Your task to perform on an android device: toggle location history Image 0: 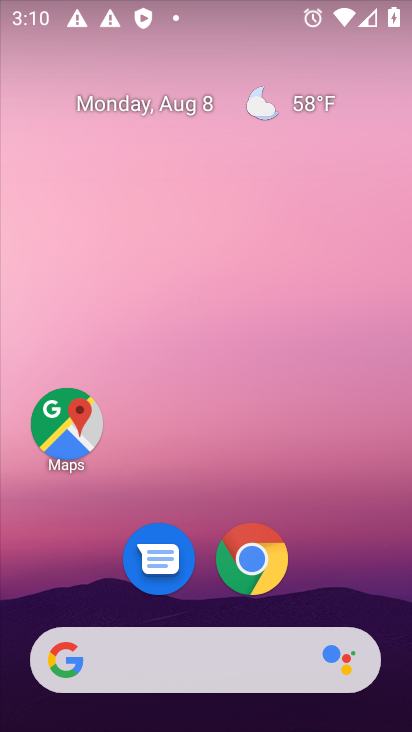
Step 0: drag from (201, 662) to (285, 177)
Your task to perform on an android device: toggle location history Image 1: 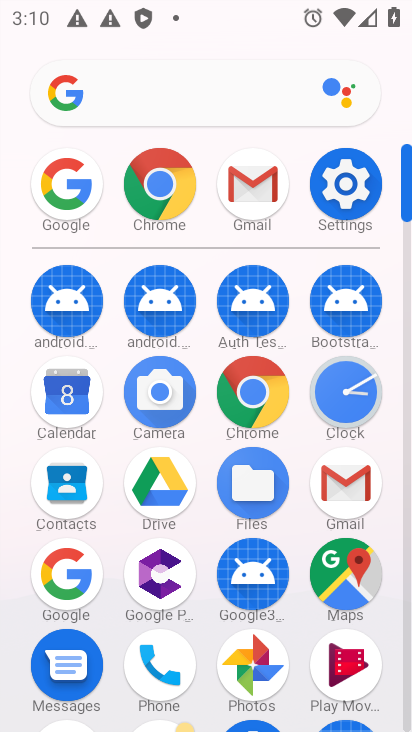
Step 1: click (346, 186)
Your task to perform on an android device: toggle location history Image 2: 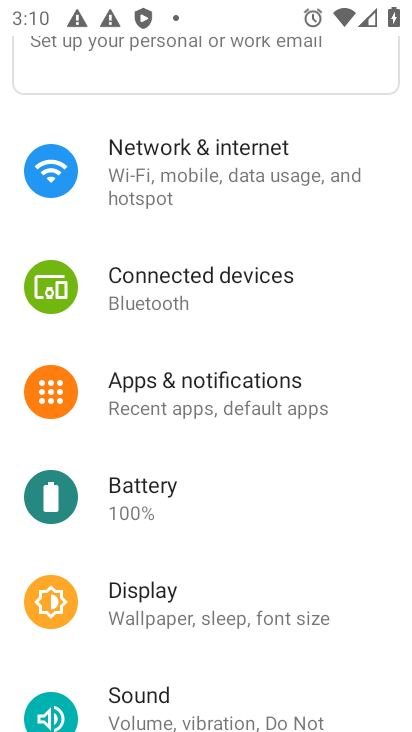
Step 2: drag from (219, 442) to (307, 310)
Your task to perform on an android device: toggle location history Image 3: 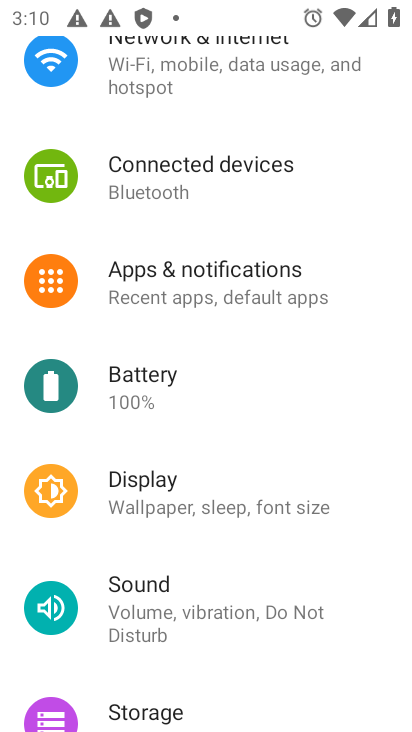
Step 3: drag from (243, 398) to (330, 300)
Your task to perform on an android device: toggle location history Image 4: 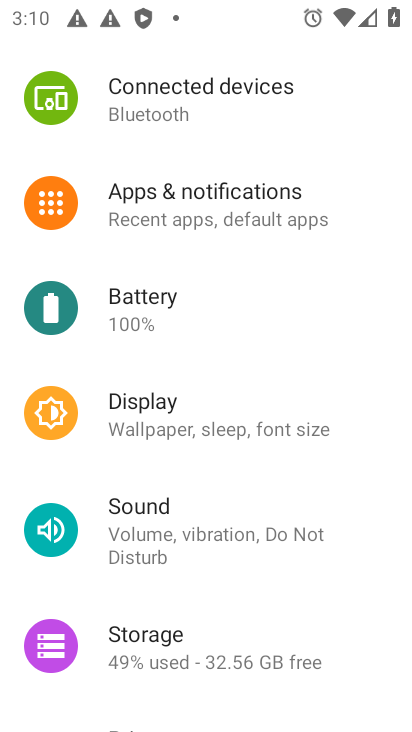
Step 4: drag from (223, 475) to (287, 366)
Your task to perform on an android device: toggle location history Image 5: 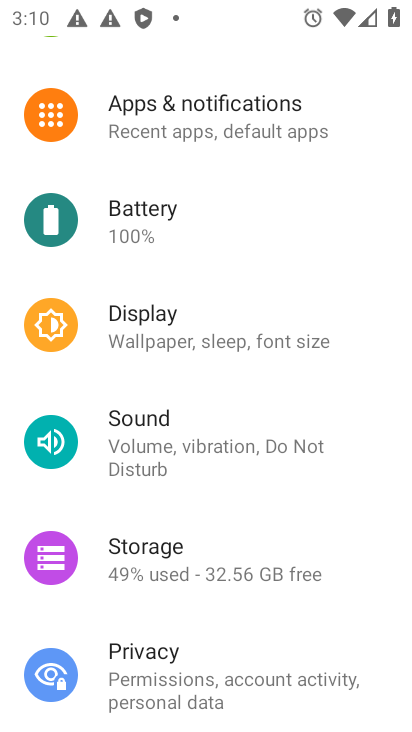
Step 5: drag from (207, 600) to (271, 485)
Your task to perform on an android device: toggle location history Image 6: 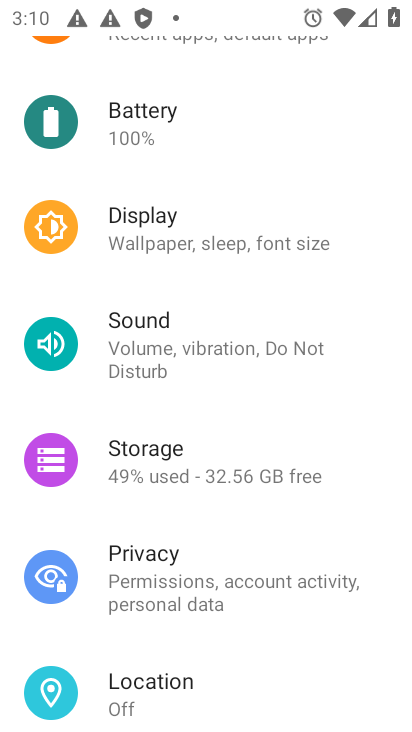
Step 6: drag from (222, 550) to (310, 422)
Your task to perform on an android device: toggle location history Image 7: 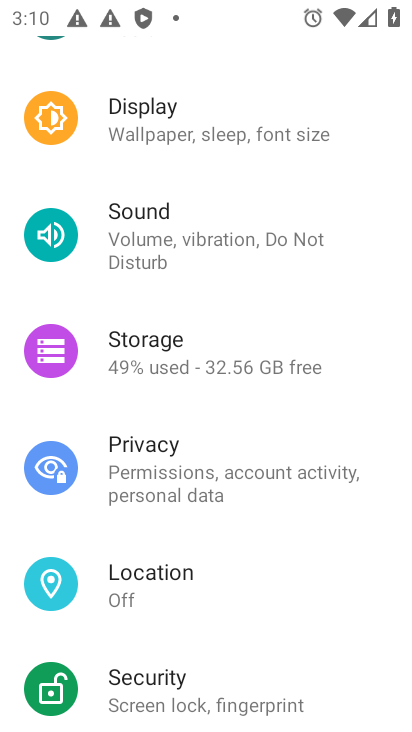
Step 7: click (178, 577)
Your task to perform on an android device: toggle location history Image 8: 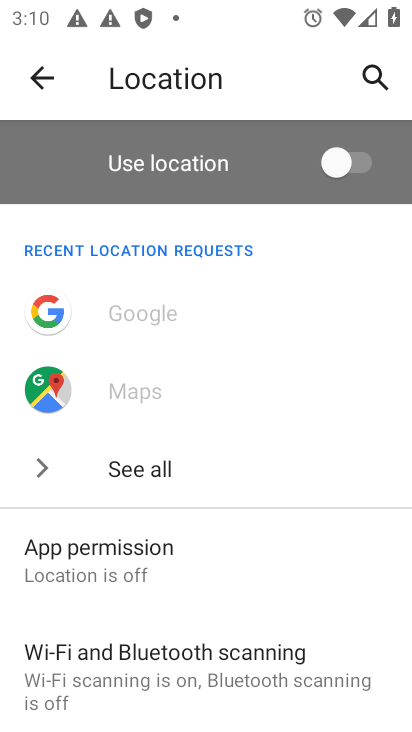
Step 8: drag from (215, 593) to (333, 385)
Your task to perform on an android device: toggle location history Image 9: 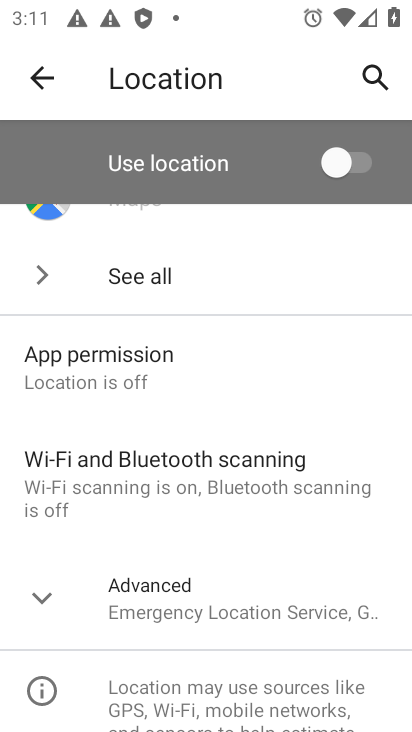
Step 9: click (211, 616)
Your task to perform on an android device: toggle location history Image 10: 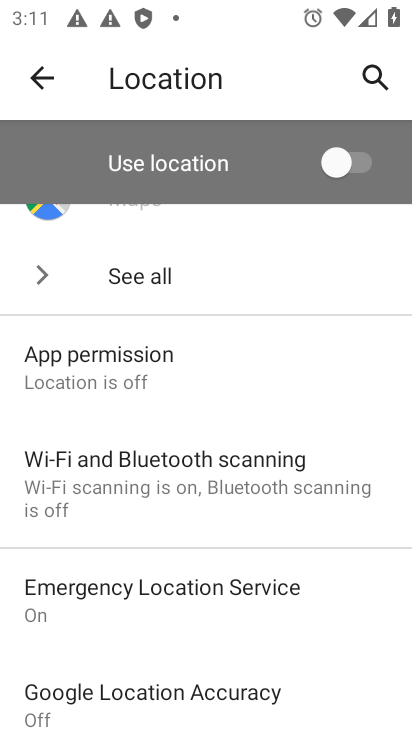
Step 10: drag from (144, 628) to (224, 499)
Your task to perform on an android device: toggle location history Image 11: 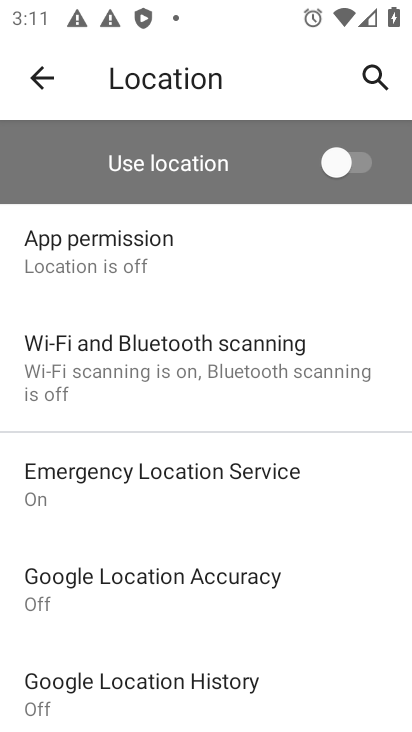
Step 11: click (128, 678)
Your task to perform on an android device: toggle location history Image 12: 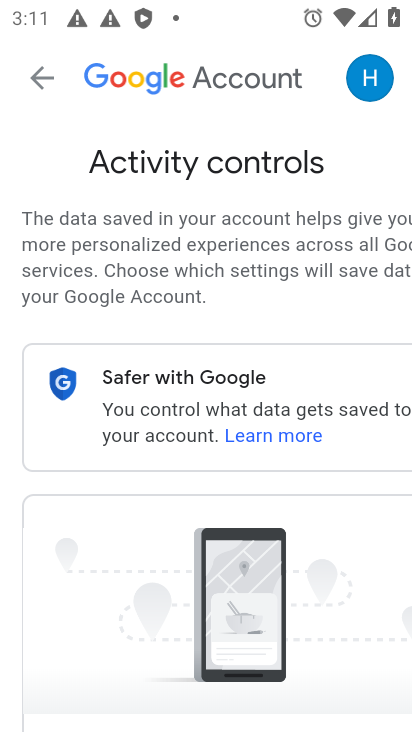
Step 12: drag from (133, 633) to (249, 344)
Your task to perform on an android device: toggle location history Image 13: 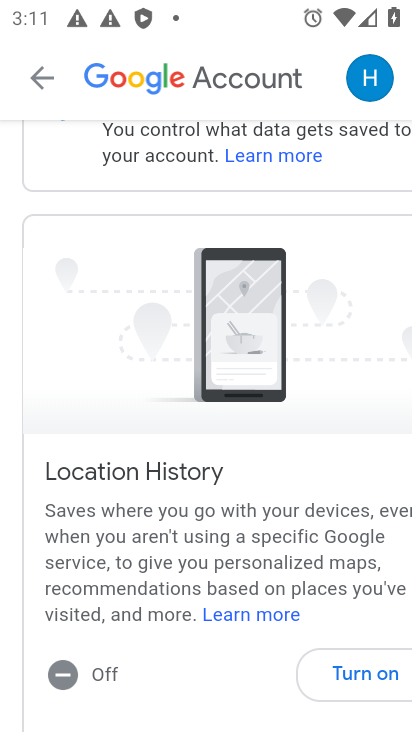
Step 13: click (353, 671)
Your task to perform on an android device: toggle location history Image 14: 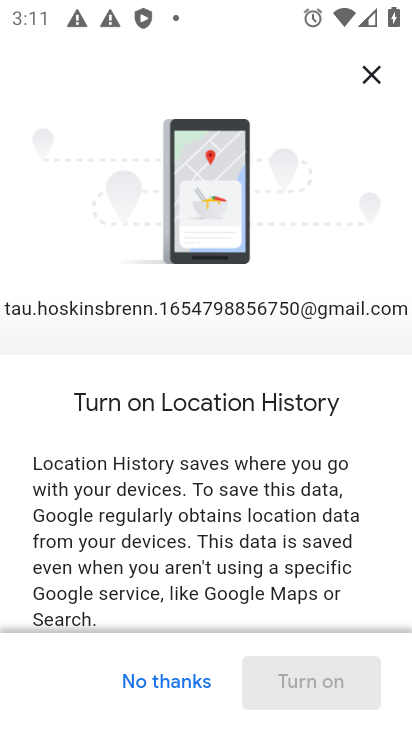
Step 14: drag from (329, 616) to (349, 457)
Your task to perform on an android device: toggle location history Image 15: 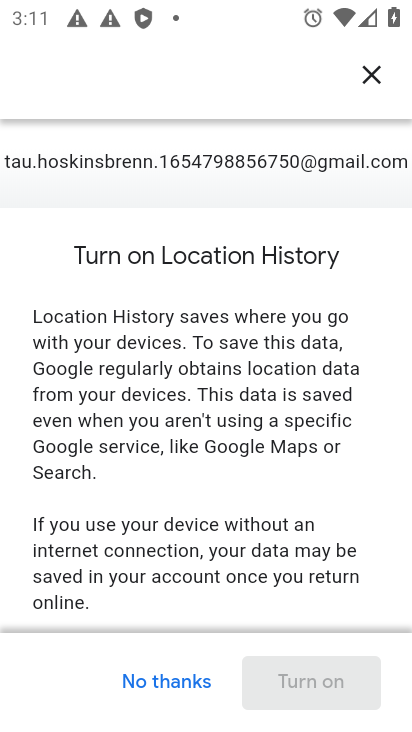
Step 15: drag from (294, 595) to (365, 483)
Your task to perform on an android device: toggle location history Image 16: 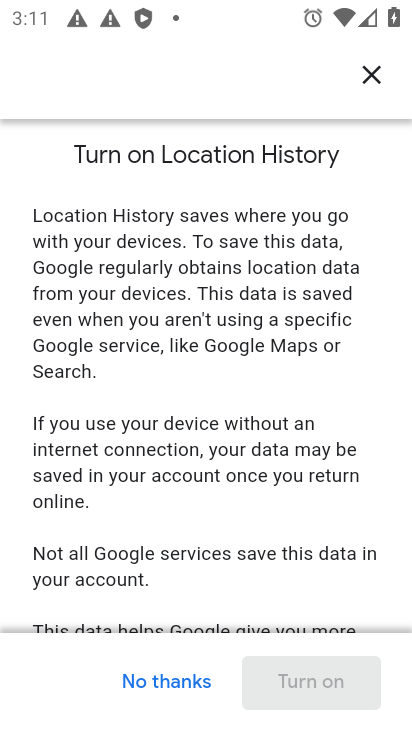
Step 16: drag from (276, 602) to (369, 463)
Your task to perform on an android device: toggle location history Image 17: 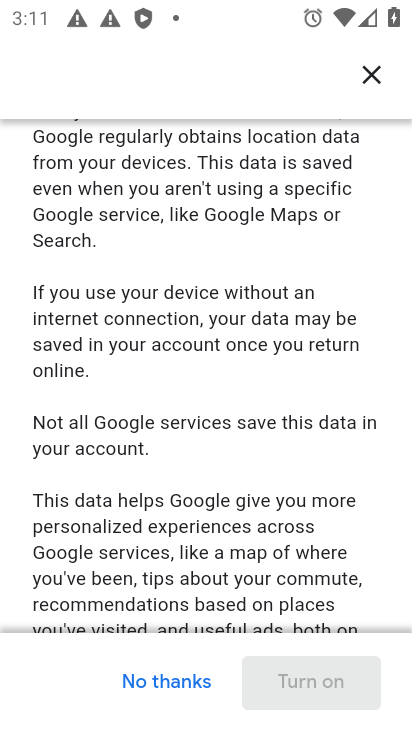
Step 17: drag from (293, 606) to (363, 500)
Your task to perform on an android device: toggle location history Image 18: 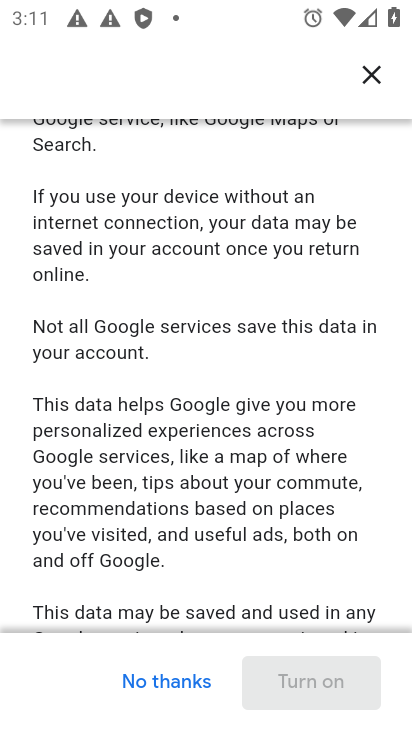
Step 18: drag from (276, 582) to (352, 465)
Your task to perform on an android device: toggle location history Image 19: 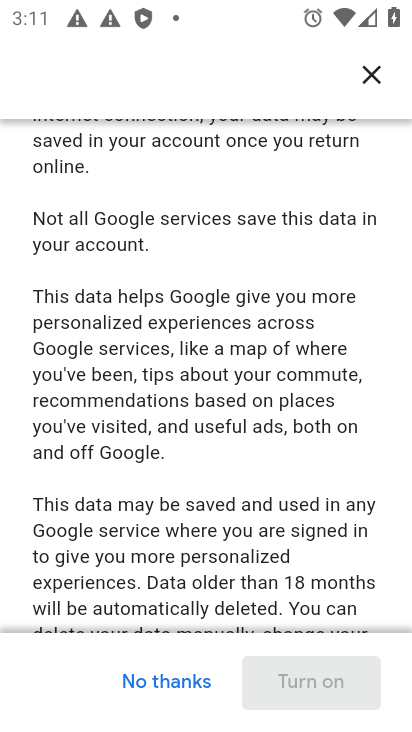
Step 19: drag from (276, 594) to (366, 470)
Your task to perform on an android device: toggle location history Image 20: 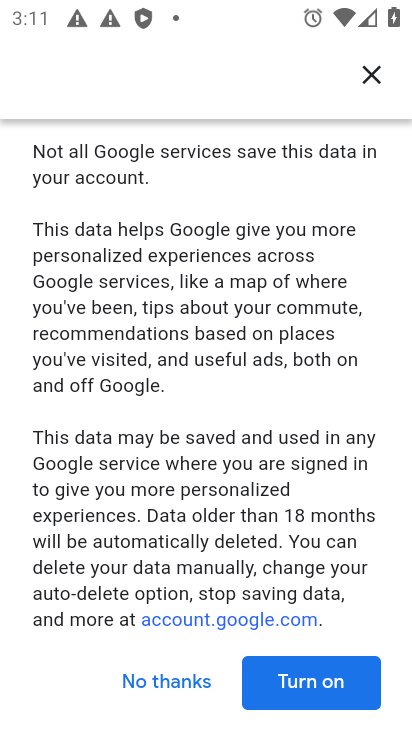
Step 20: click (304, 689)
Your task to perform on an android device: toggle location history Image 21: 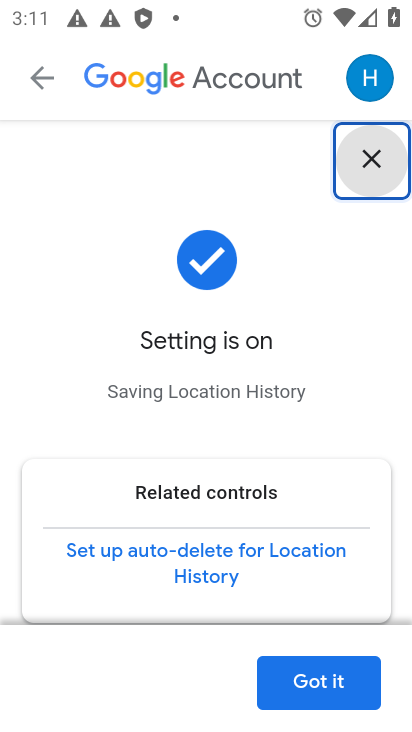
Step 21: click (299, 684)
Your task to perform on an android device: toggle location history Image 22: 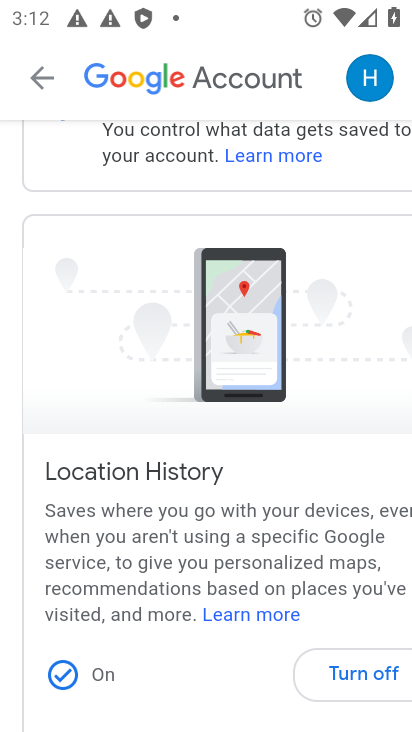
Step 22: task complete